Your task to perform on an android device: find snoozed emails in the gmail app Image 0: 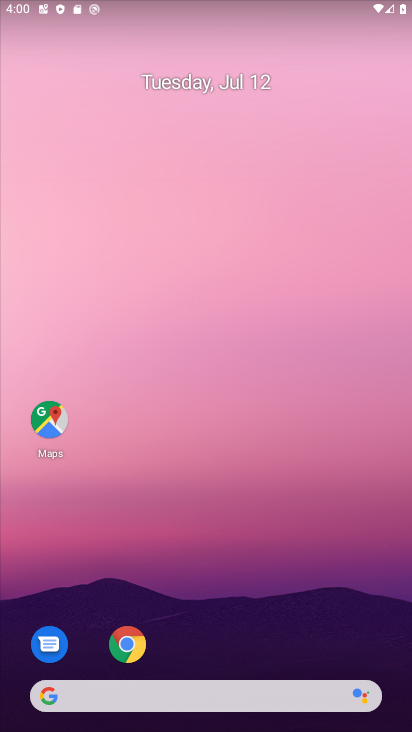
Step 0: drag from (234, 551) to (257, 52)
Your task to perform on an android device: find snoozed emails in the gmail app Image 1: 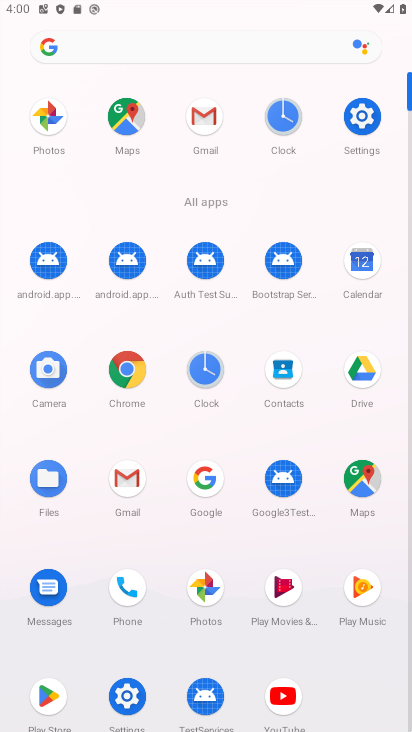
Step 1: click (200, 122)
Your task to perform on an android device: find snoozed emails in the gmail app Image 2: 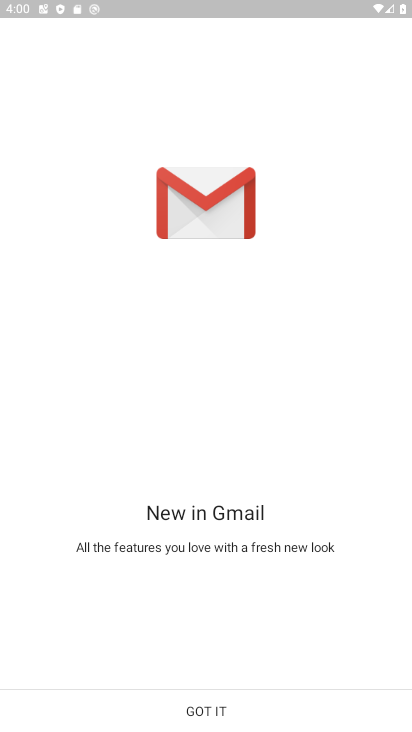
Step 2: click (260, 694)
Your task to perform on an android device: find snoozed emails in the gmail app Image 3: 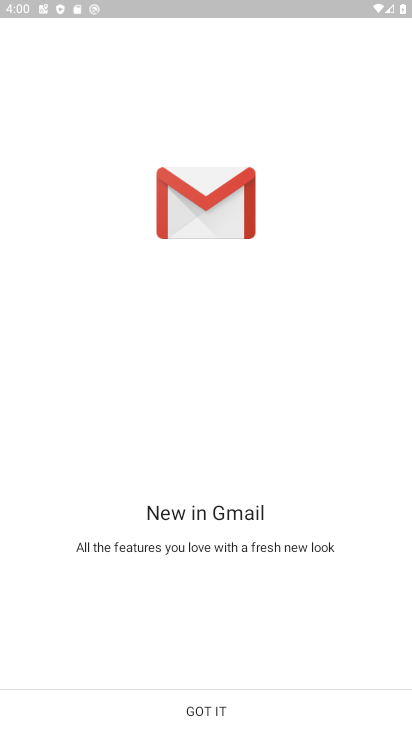
Step 3: click (260, 694)
Your task to perform on an android device: find snoozed emails in the gmail app Image 4: 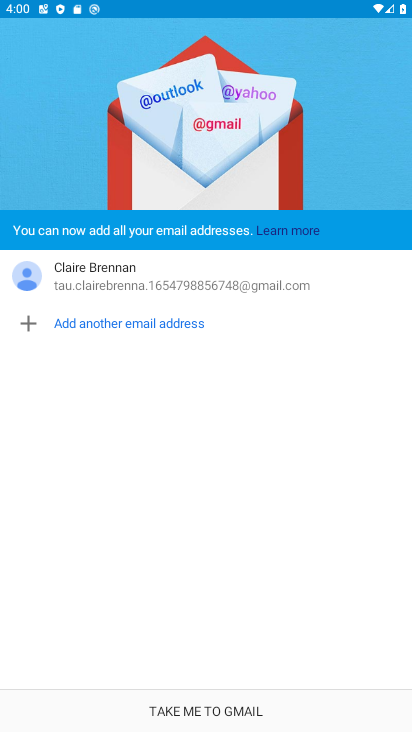
Step 4: click (169, 696)
Your task to perform on an android device: find snoozed emails in the gmail app Image 5: 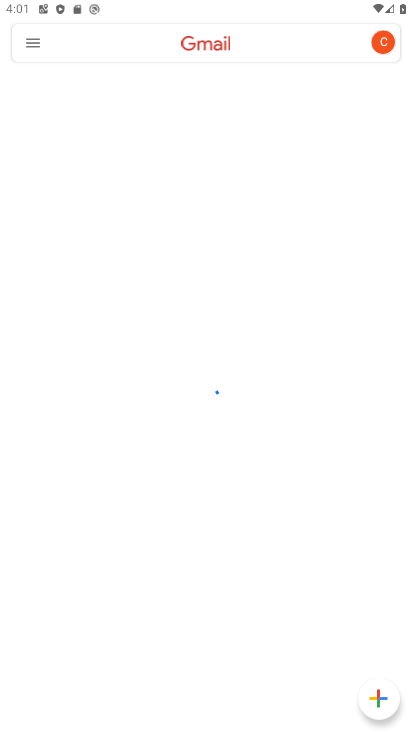
Step 5: click (39, 42)
Your task to perform on an android device: find snoozed emails in the gmail app Image 6: 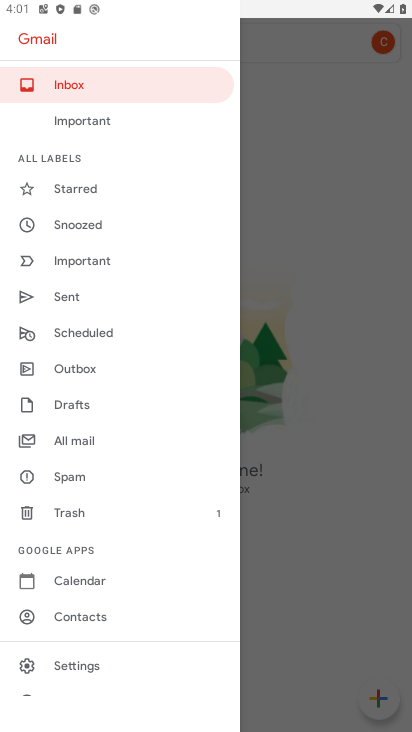
Step 6: click (81, 226)
Your task to perform on an android device: find snoozed emails in the gmail app Image 7: 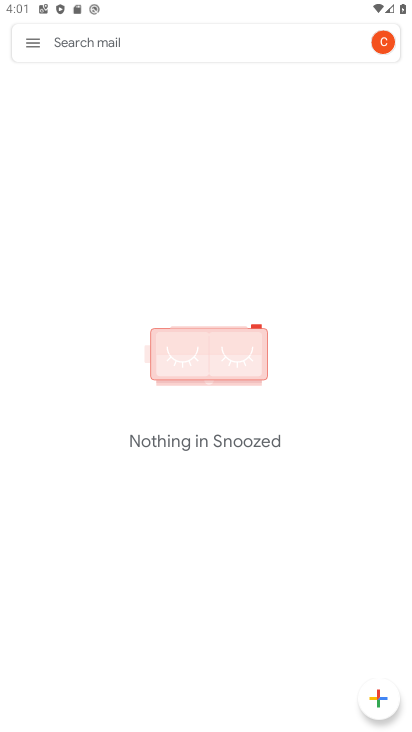
Step 7: task complete